Your task to perform on an android device: Go to network settings Image 0: 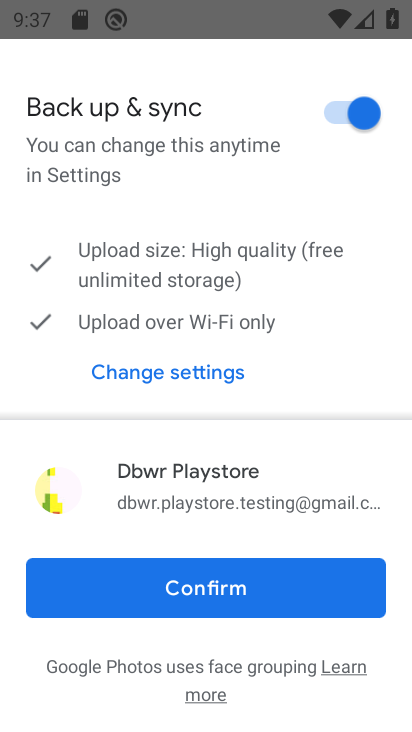
Step 0: press home button
Your task to perform on an android device: Go to network settings Image 1: 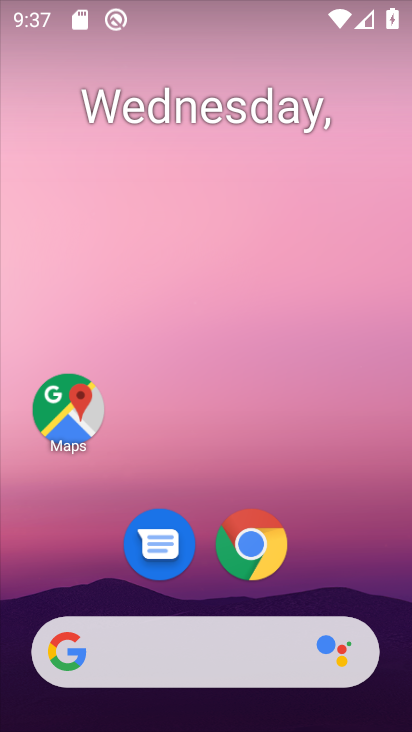
Step 1: drag from (367, 360) to (352, 0)
Your task to perform on an android device: Go to network settings Image 2: 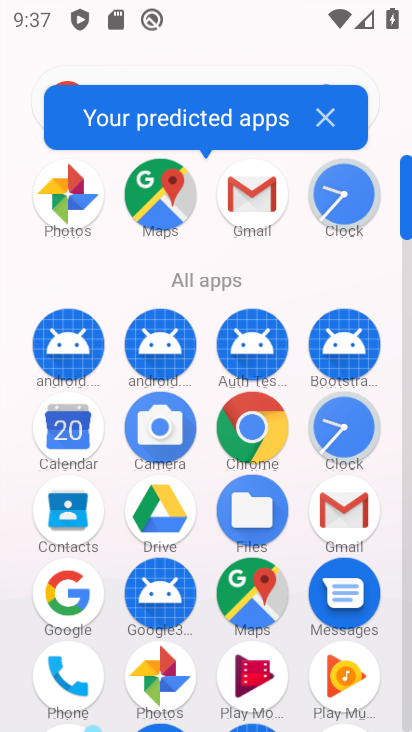
Step 2: drag from (406, 486) to (409, 447)
Your task to perform on an android device: Go to network settings Image 3: 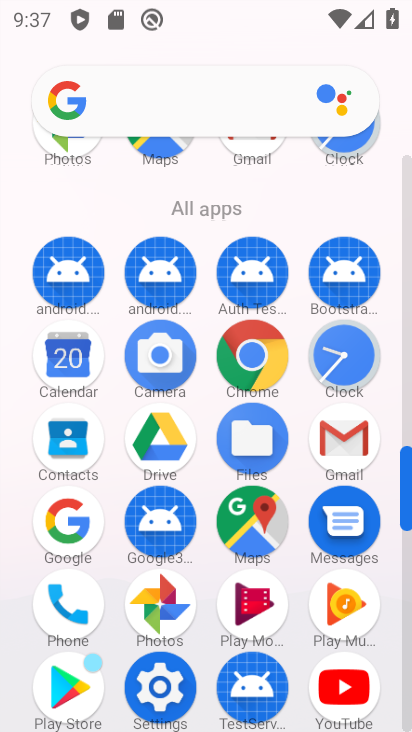
Step 3: click (166, 683)
Your task to perform on an android device: Go to network settings Image 4: 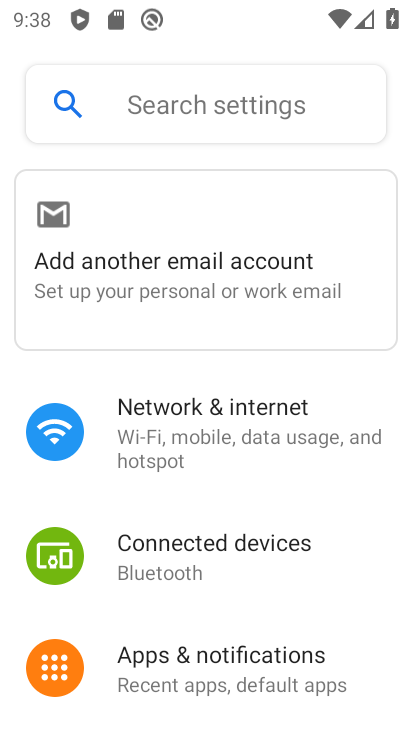
Step 4: click (190, 420)
Your task to perform on an android device: Go to network settings Image 5: 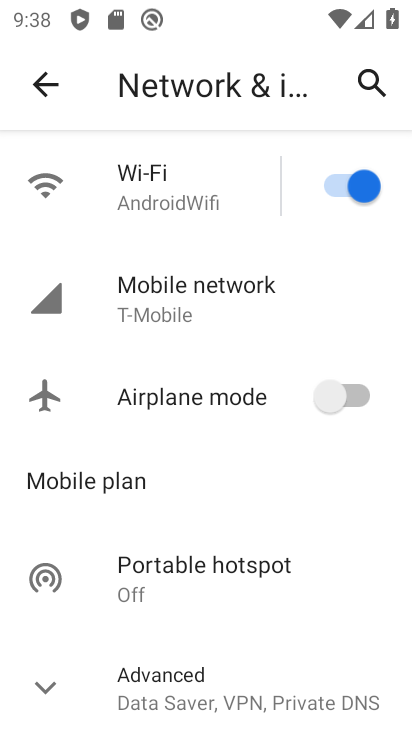
Step 5: click (161, 307)
Your task to perform on an android device: Go to network settings Image 6: 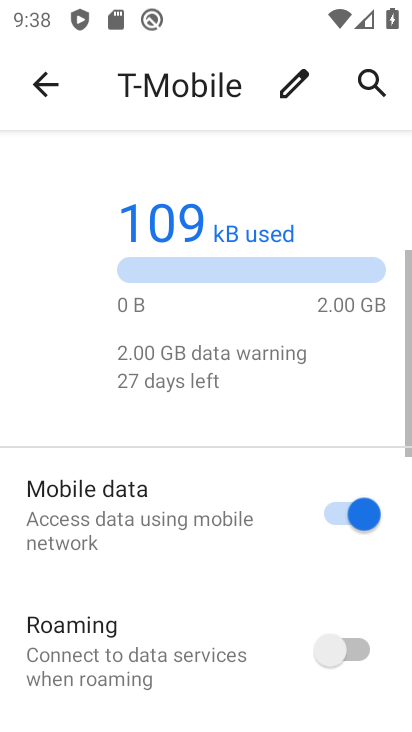
Step 6: drag from (225, 566) to (230, 152)
Your task to perform on an android device: Go to network settings Image 7: 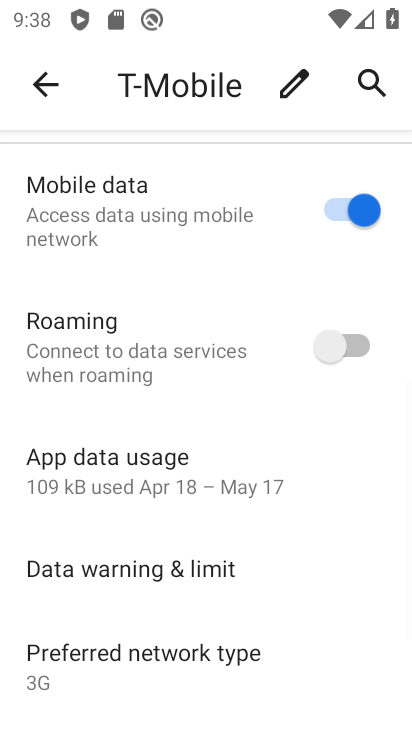
Step 7: drag from (202, 549) to (165, 142)
Your task to perform on an android device: Go to network settings Image 8: 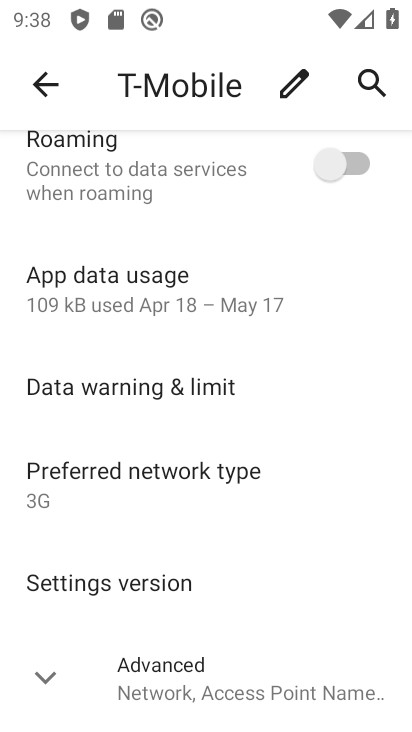
Step 8: drag from (177, 483) to (160, 219)
Your task to perform on an android device: Go to network settings Image 9: 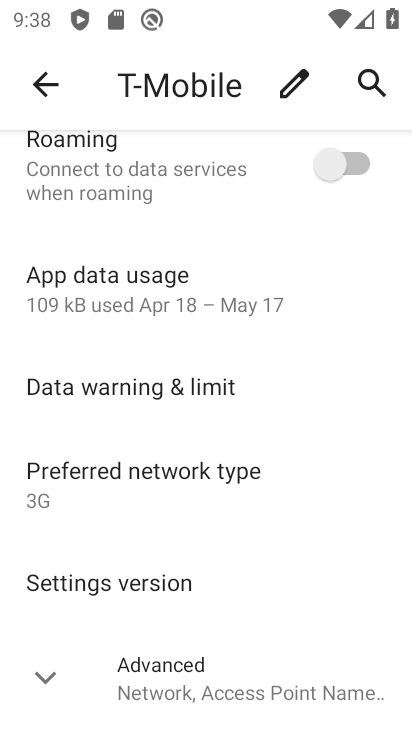
Step 9: click (46, 682)
Your task to perform on an android device: Go to network settings Image 10: 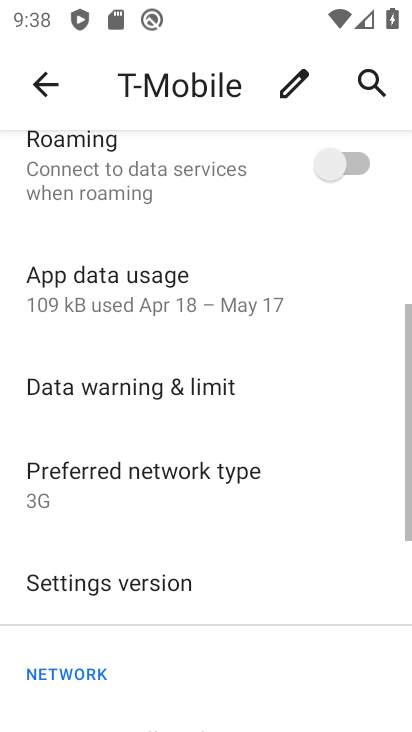
Step 10: task complete